Your task to perform on an android device: Go to Wikipedia Image 0: 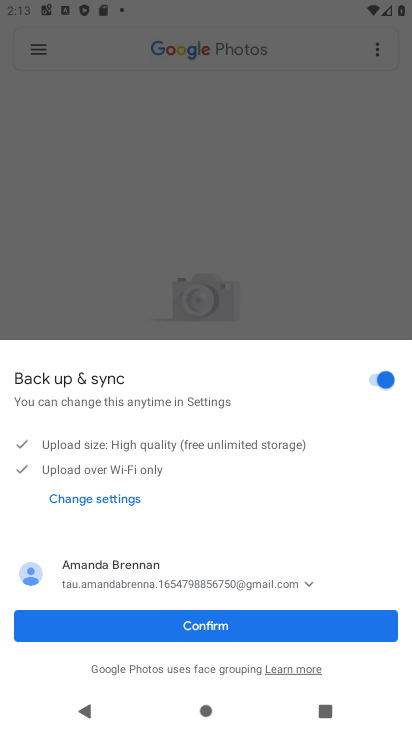
Step 0: press home button
Your task to perform on an android device: Go to Wikipedia Image 1: 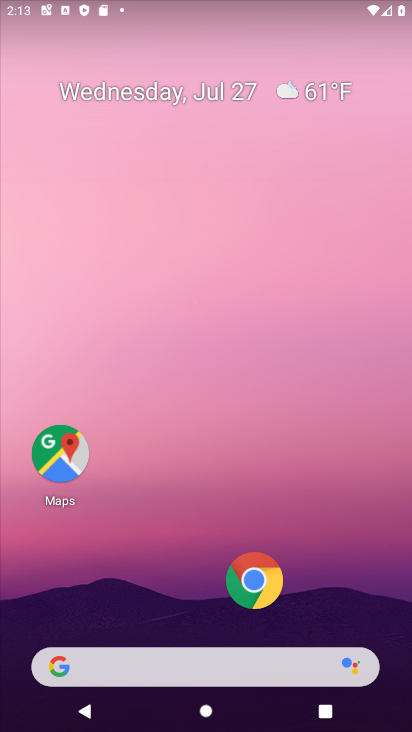
Step 1: click (276, 575)
Your task to perform on an android device: Go to Wikipedia Image 2: 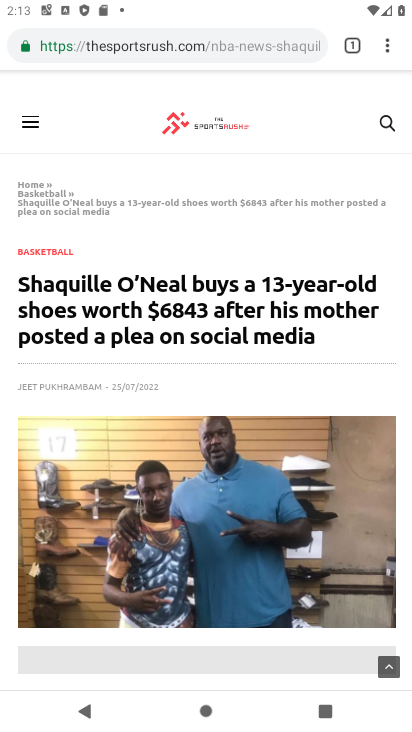
Step 2: click (364, 41)
Your task to perform on an android device: Go to Wikipedia Image 3: 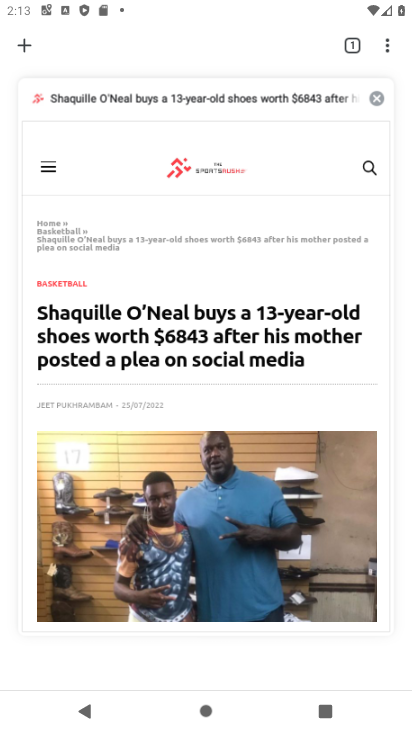
Step 3: click (22, 44)
Your task to perform on an android device: Go to Wikipedia Image 4: 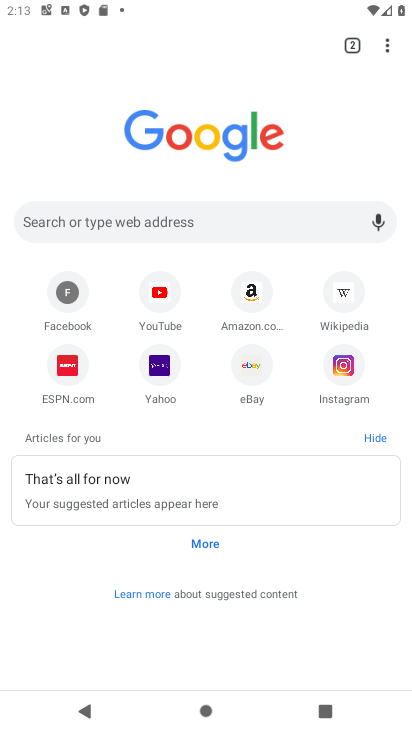
Step 4: click (340, 297)
Your task to perform on an android device: Go to Wikipedia Image 5: 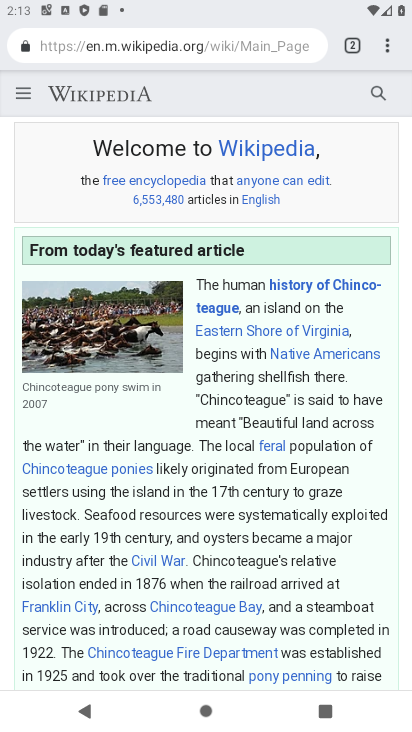
Step 5: task complete